Your task to perform on an android device: Open Google Chrome and open the bookmarks view Image 0: 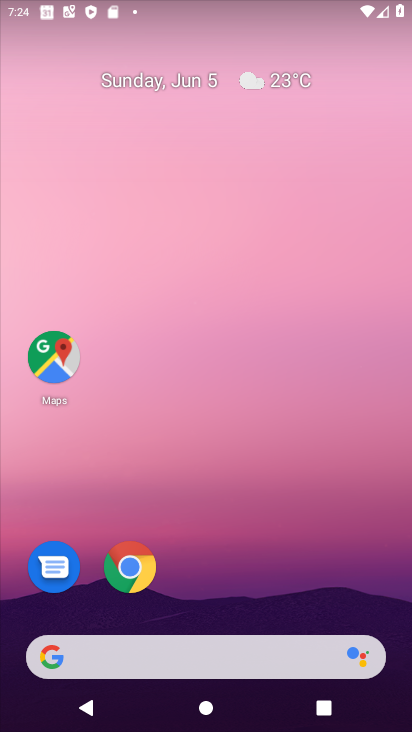
Step 0: drag from (397, 604) to (258, 25)
Your task to perform on an android device: Open Google Chrome and open the bookmarks view Image 1: 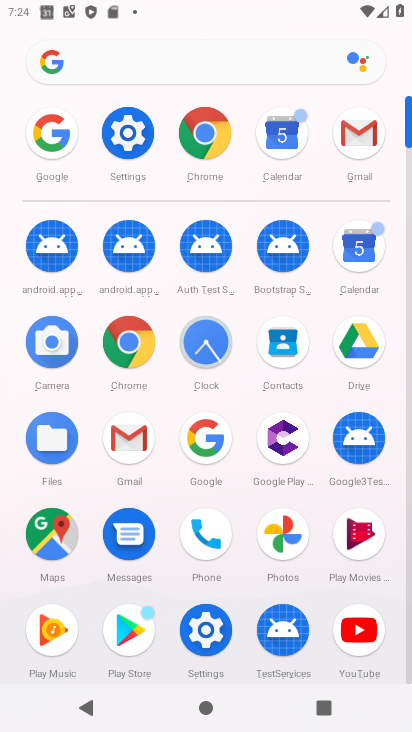
Step 1: click (221, 138)
Your task to perform on an android device: Open Google Chrome and open the bookmarks view Image 2: 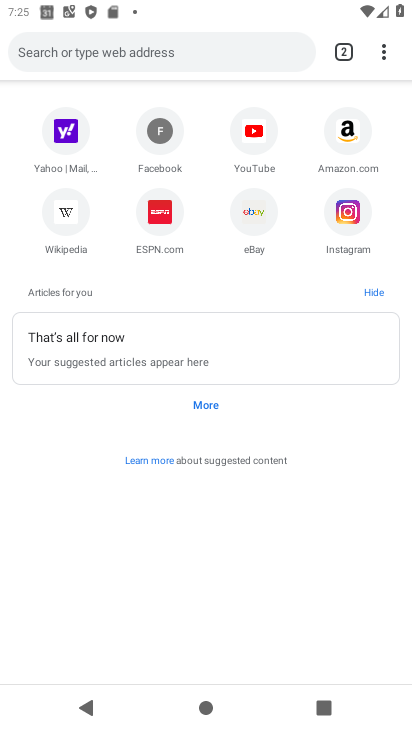
Step 2: click (383, 42)
Your task to perform on an android device: Open Google Chrome and open the bookmarks view Image 3: 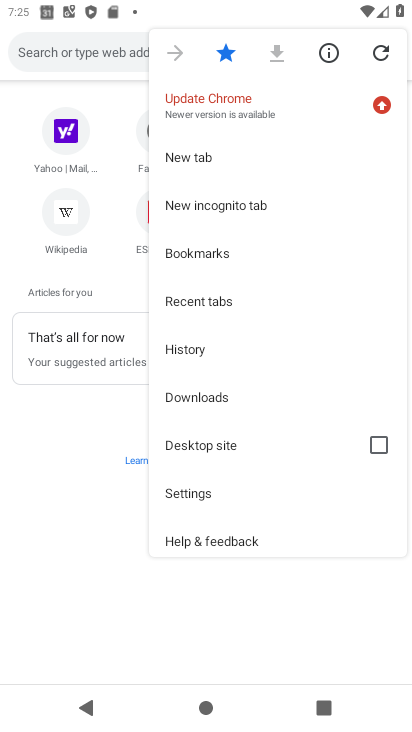
Step 3: click (218, 262)
Your task to perform on an android device: Open Google Chrome and open the bookmarks view Image 4: 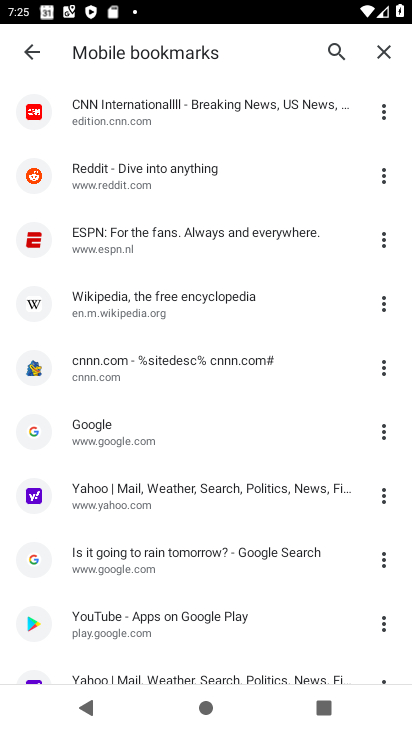
Step 4: task complete